Your task to perform on an android device: turn off improve location accuracy Image 0: 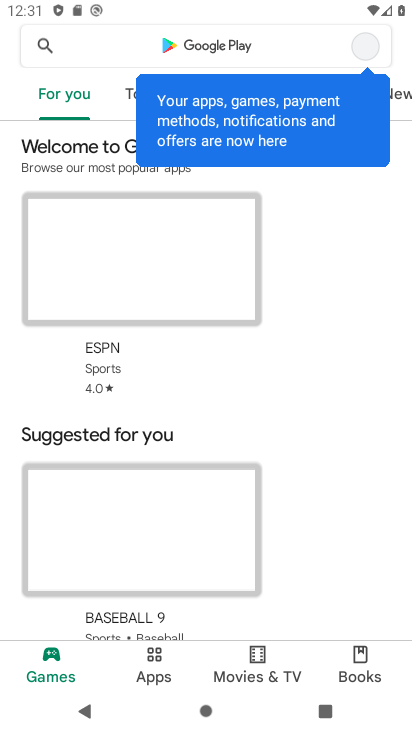
Step 0: press home button
Your task to perform on an android device: turn off improve location accuracy Image 1: 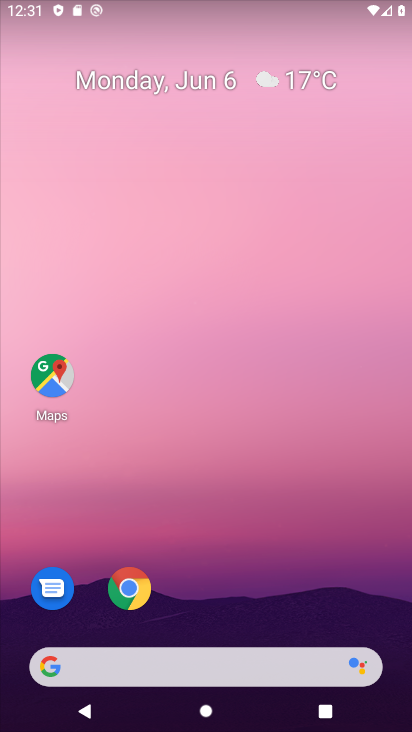
Step 1: drag from (247, 577) to (213, 140)
Your task to perform on an android device: turn off improve location accuracy Image 2: 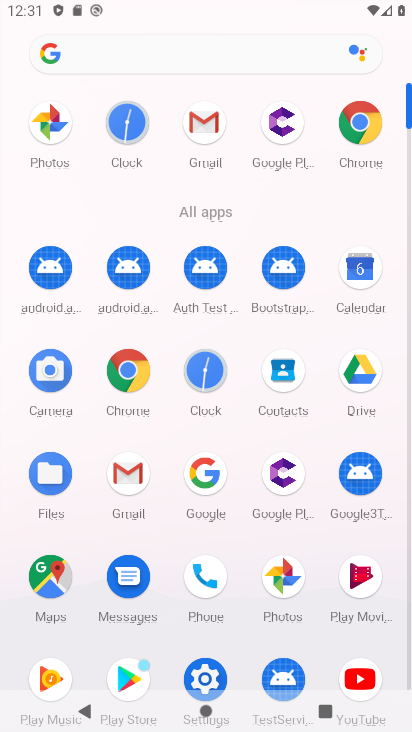
Step 2: click (212, 667)
Your task to perform on an android device: turn off improve location accuracy Image 3: 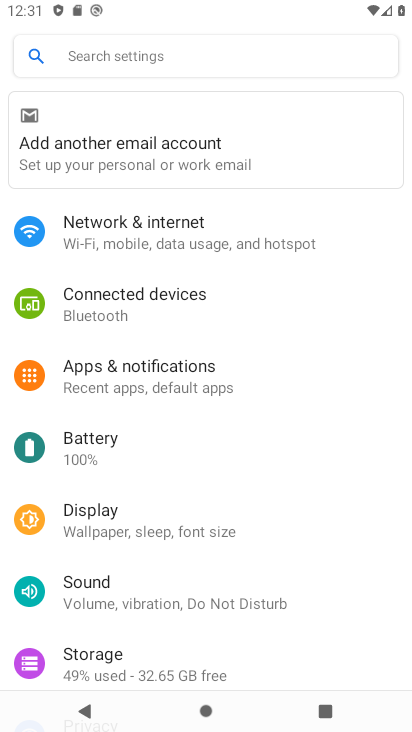
Step 3: drag from (182, 559) to (346, 133)
Your task to perform on an android device: turn off improve location accuracy Image 4: 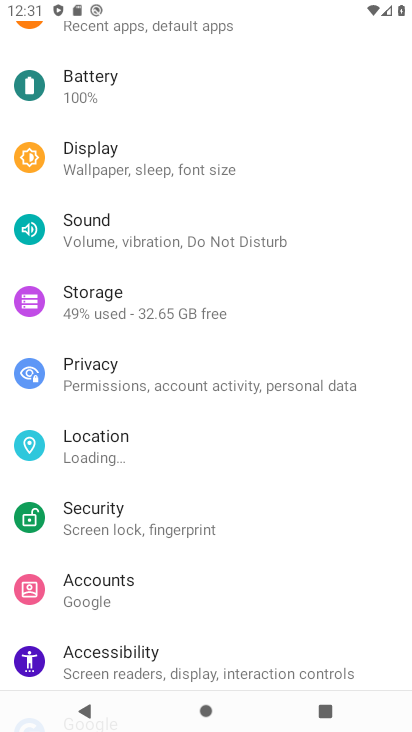
Step 4: click (116, 455)
Your task to perform on an android device: turn off improve location accuracy Image 5: 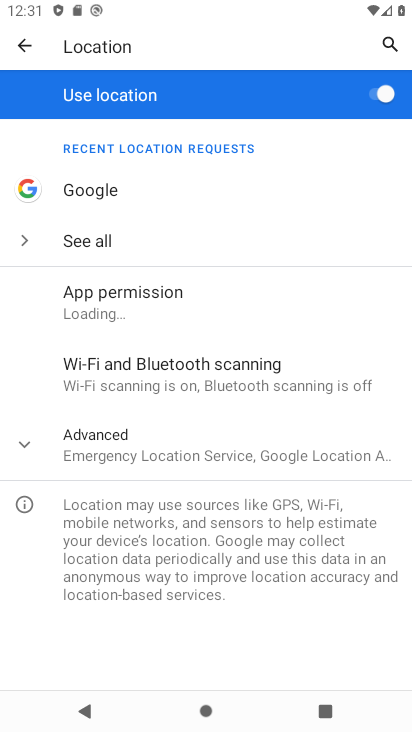
Step 5: click (247, 444)
Your task to perform on an android device: turn off improve location accuracy Image 6: 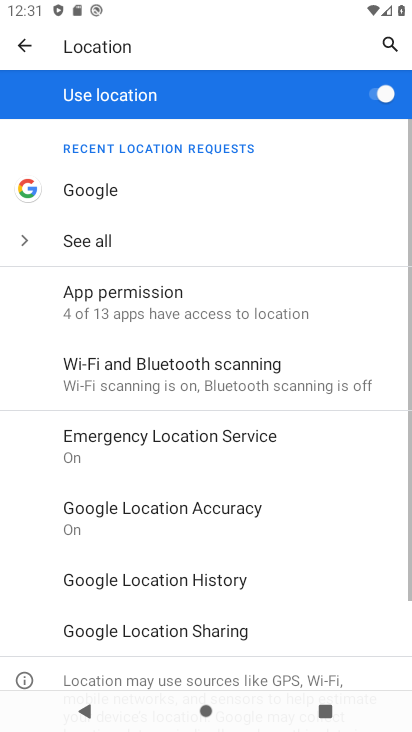
Step 6: click (236, 523)
Your task to perform on an android device: turn off improve location accuracy Image 7: 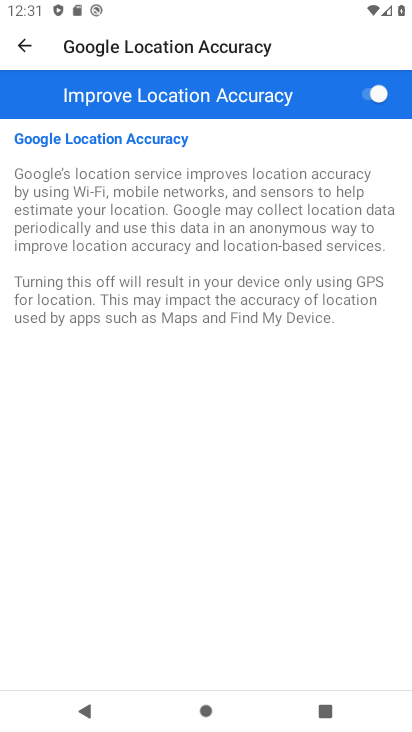
Step 7: click (363, 94)
Your task to perform on an android device: turn off improve location accuracy Image 8: 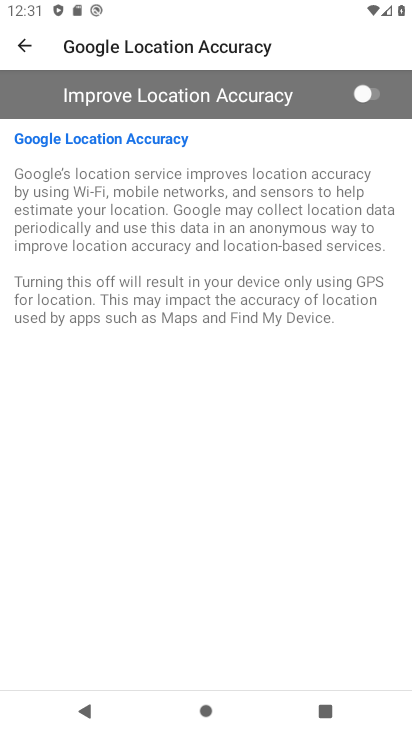
Step 8: task complete